Your task to perform on an android device: Open Youtube and go to the subscriptions tab Image 0: 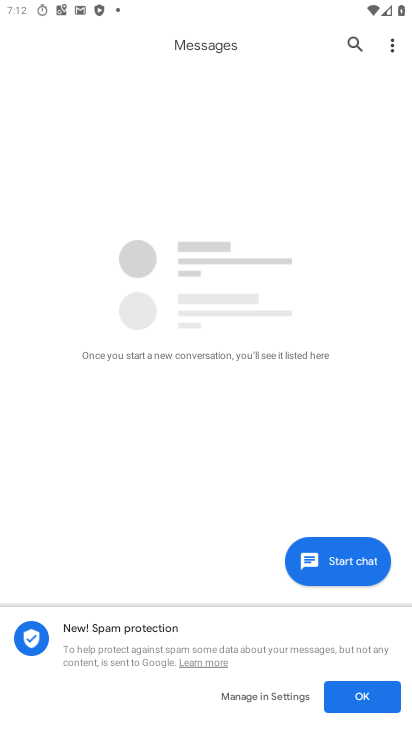
Step 0: press home button
Your task to perform on an android device: Open Youtube and go to the subscriptions tab Image 1: 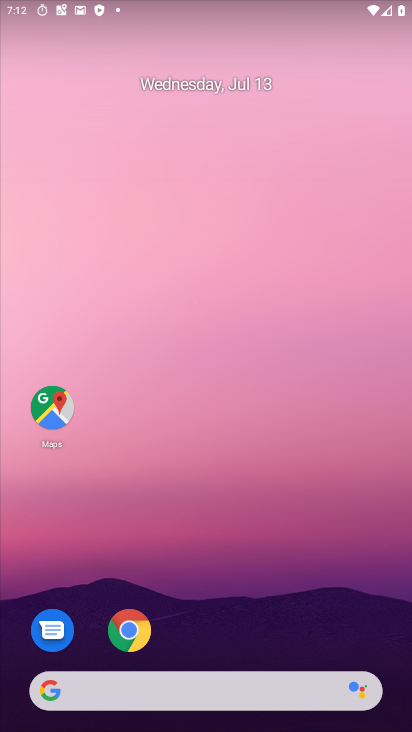
Step 1: drag from (297, 628) to (285, 112)
Your task to perform on an android device: Open Youtube and go to the subscriptions tab Image 2: 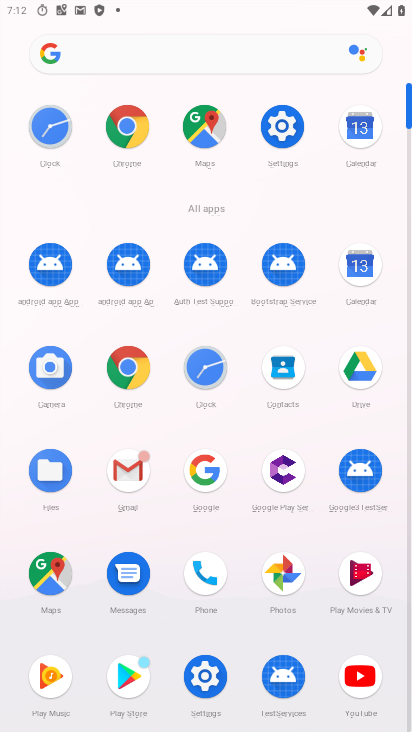
Step 2: click (355, 674)
Your task to perform on an android device: Open Youtube and go to the subscriptions tab Image 3: 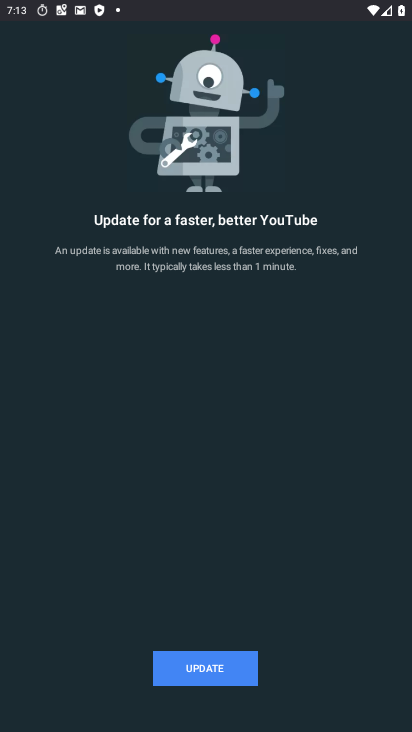
Step 3: drag from (188, 648) to (150, 648)
Your task to perform on an android device: Open Youtube and go to the subscriptions tab Image 4: 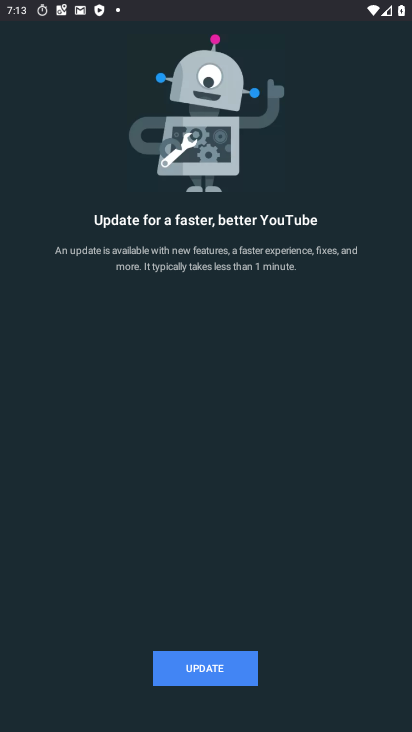
Step 4: click (222, 667)
Your task to perform on an android device: Open Youtube and go to the subscriptions tab Image 5: 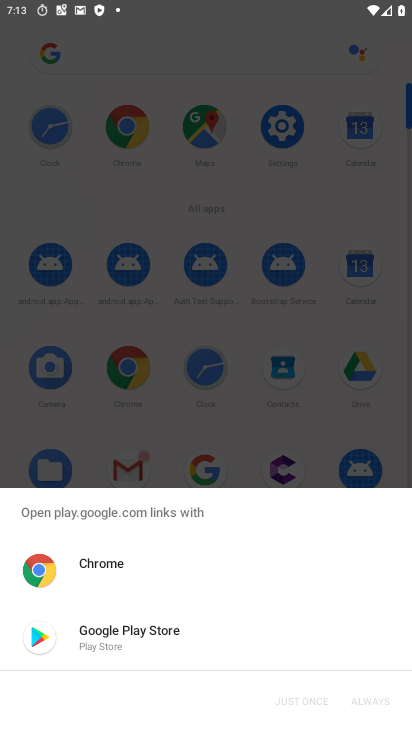
Step 5: click (90, 616)
Your task to perform on an android device: Open Youtube and go to the subscriptions tab Image 6: 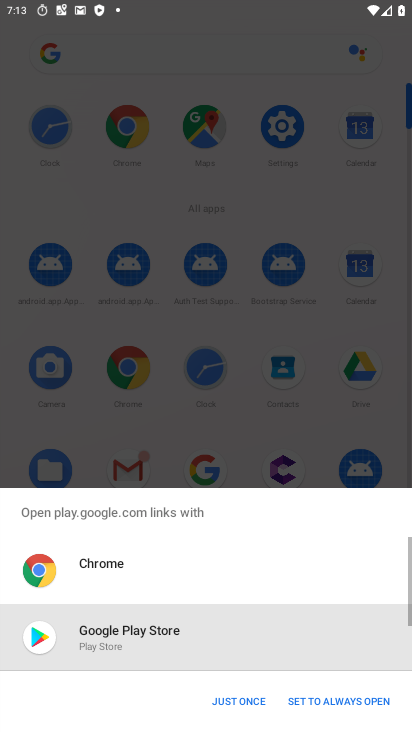
Step 6: click (228, 690)
Your task to perform on an android device: Open Youtube and go to the subscriptions tab Image 7: 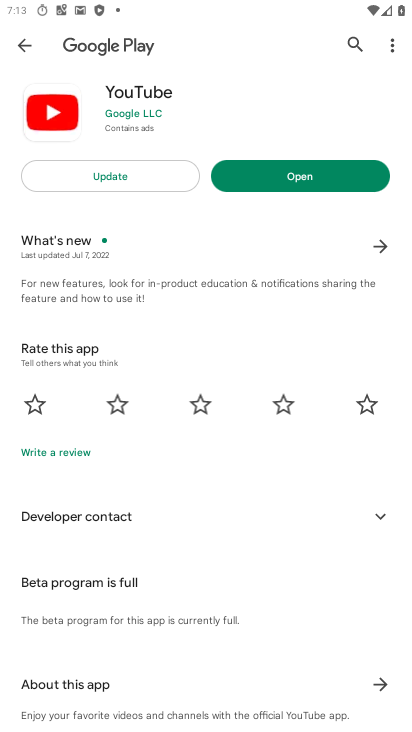
Step 7: click (310, 151)
Your task to perform on an android device: Open Youtube and go to the subscriptions tab Image 8: 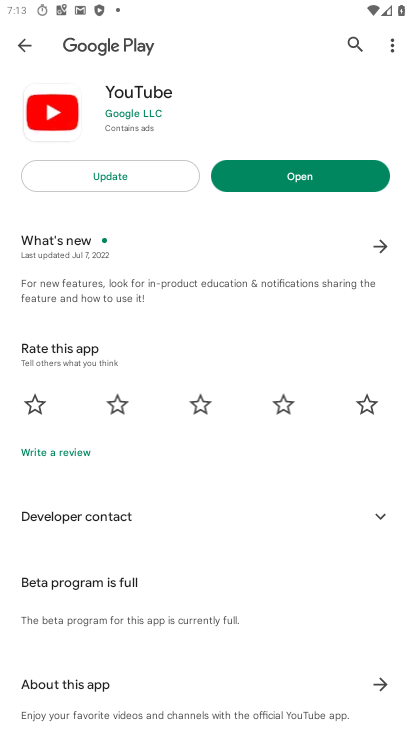
Step 8: click (339, 175)
Your task to perform on an android device: Open Youtube and go to the subscriptions tab Image 9: 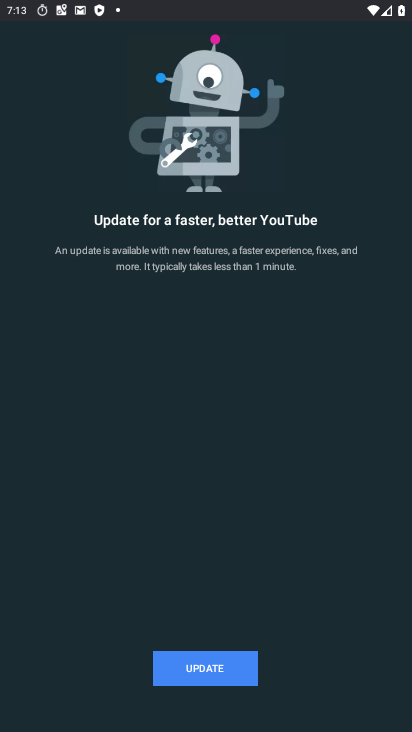
Step 9: task complete